Your task to perform on an android device: Open Youtube and go to the subscriptions tab Image 0: 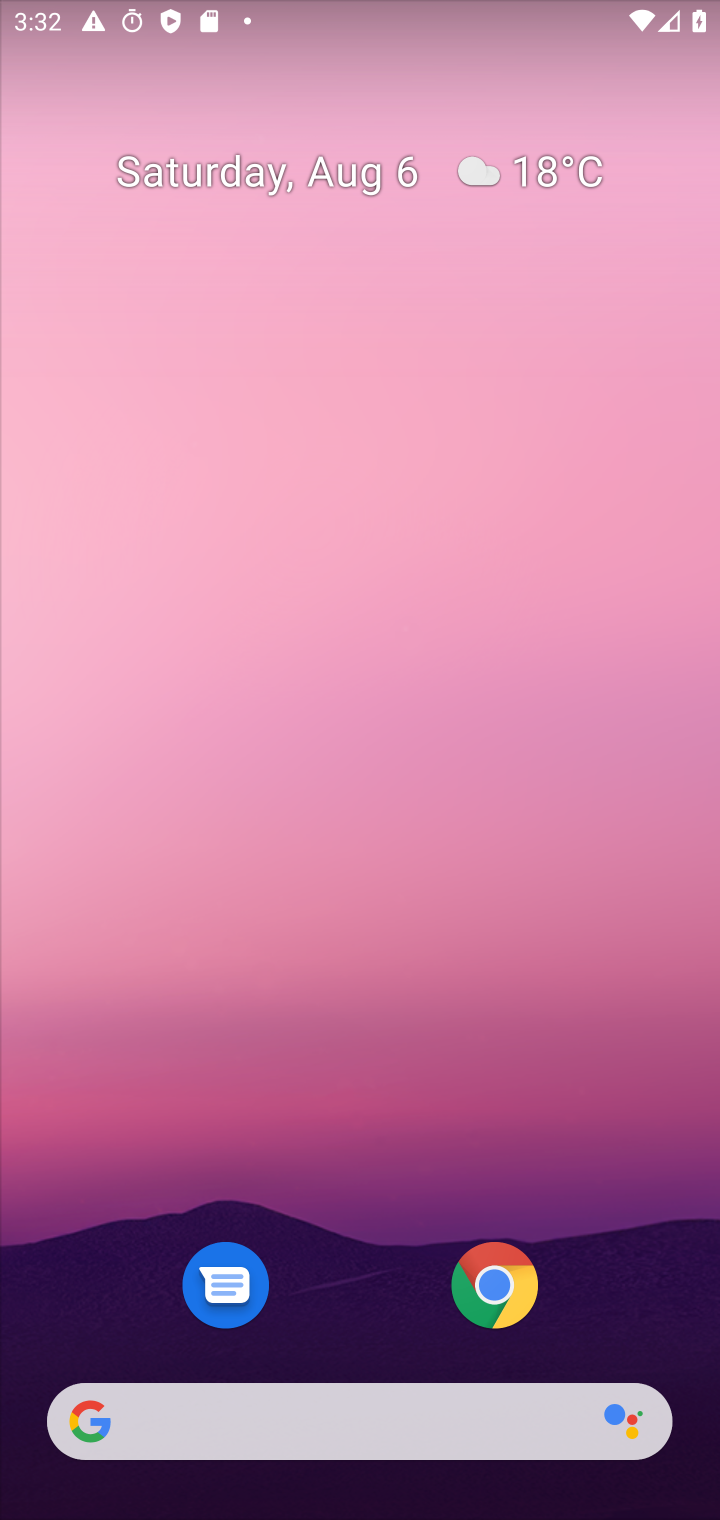
Step 0: press home button
Your task to perform on an android device: Open Youtube and go to the subscriptions tab Image 1: 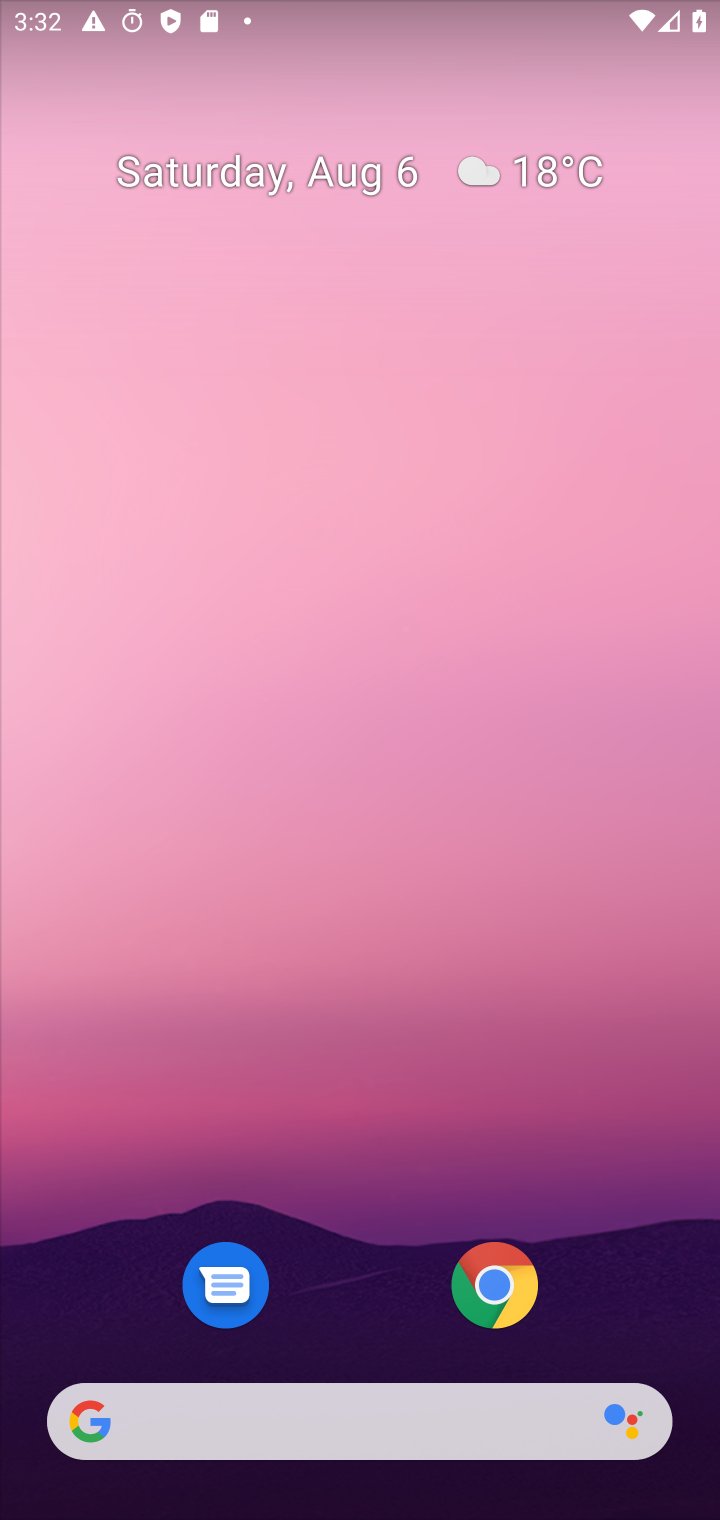
Step 1: drag from (383, 1337) to (408, 166)
Your task to perform on an android device: Open Youtube and go to the subscriptions tab Image 2: 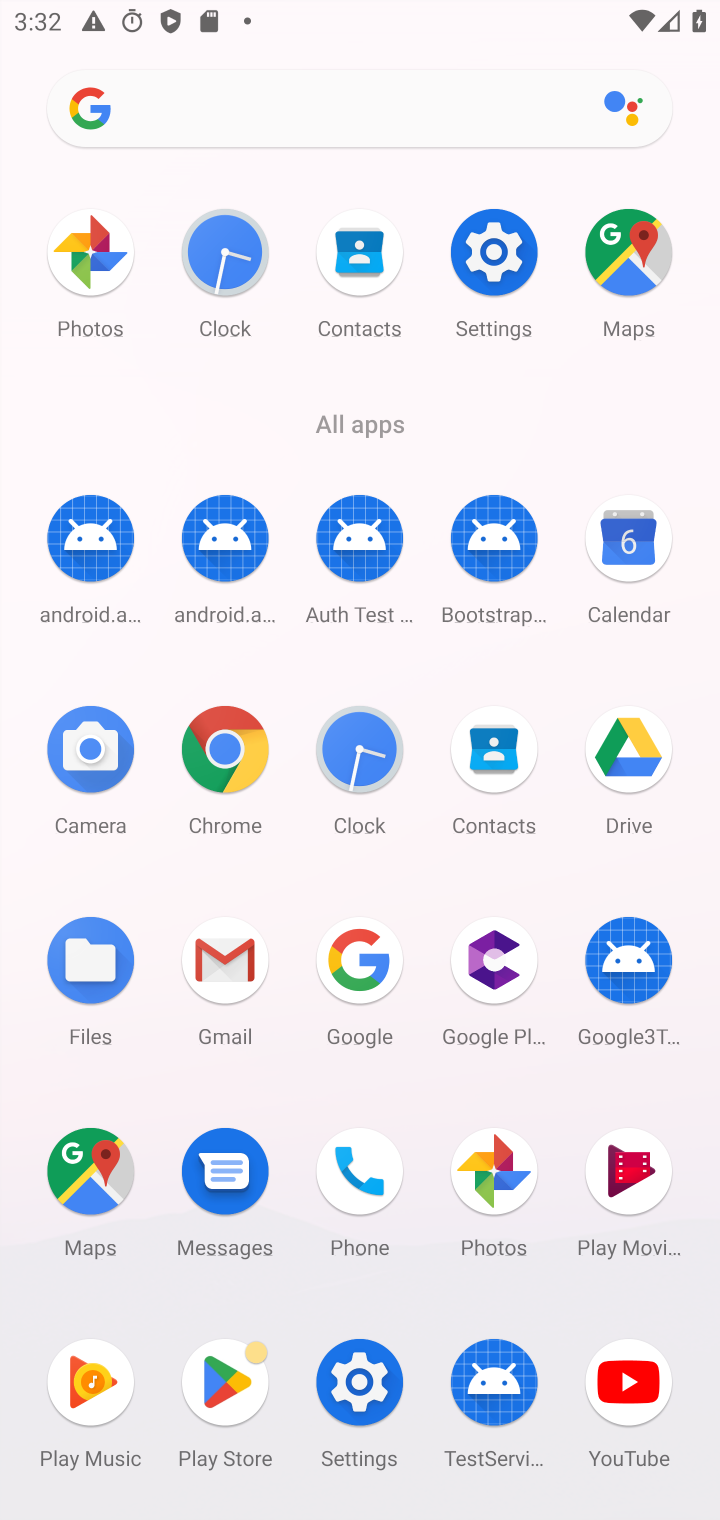
Step 2: click (628, 1366)
Your task to perform on an android device: Open Youtube and go to the subscriptions tab Image 3: 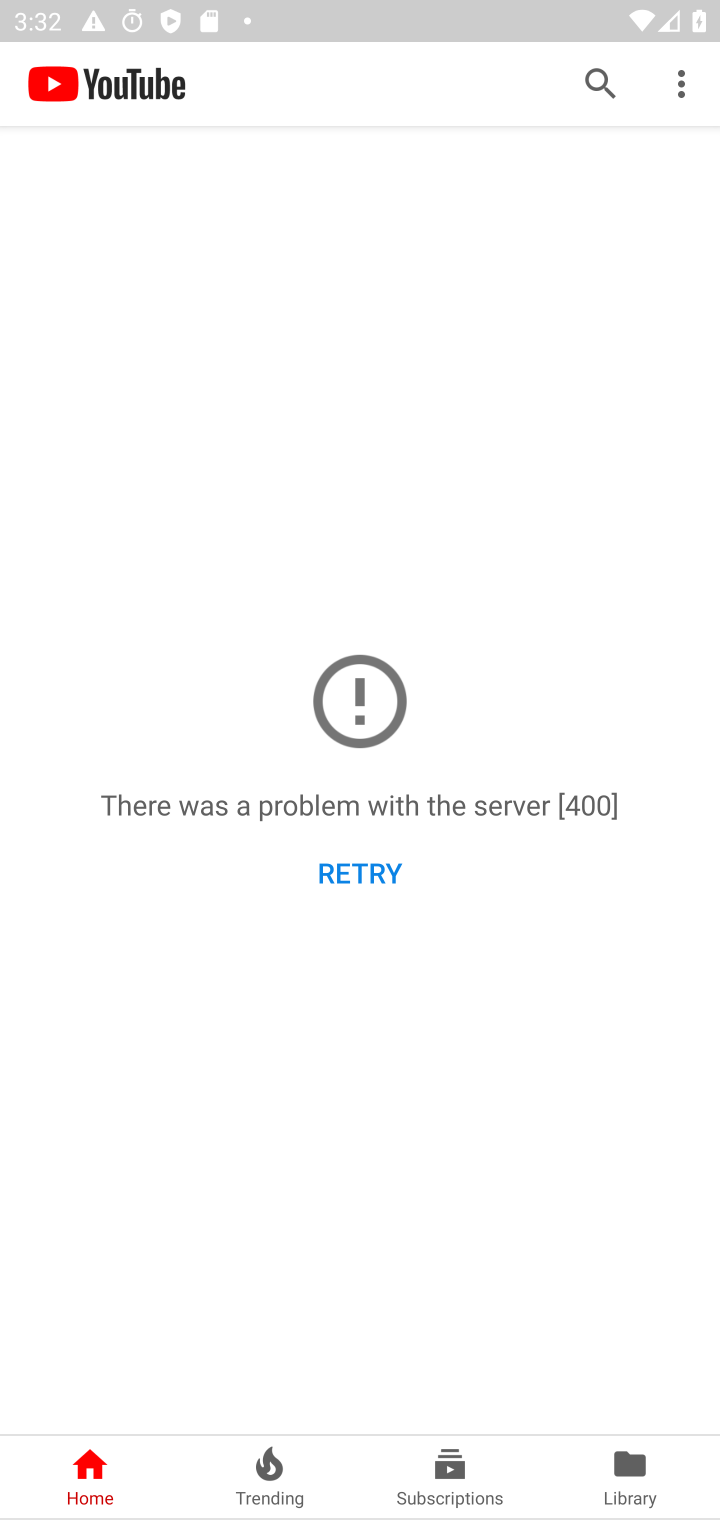
Step 3: click (360, 877)
Your task to perform on an android device: Open Youtube and go to the subscriptions tab Image 4: 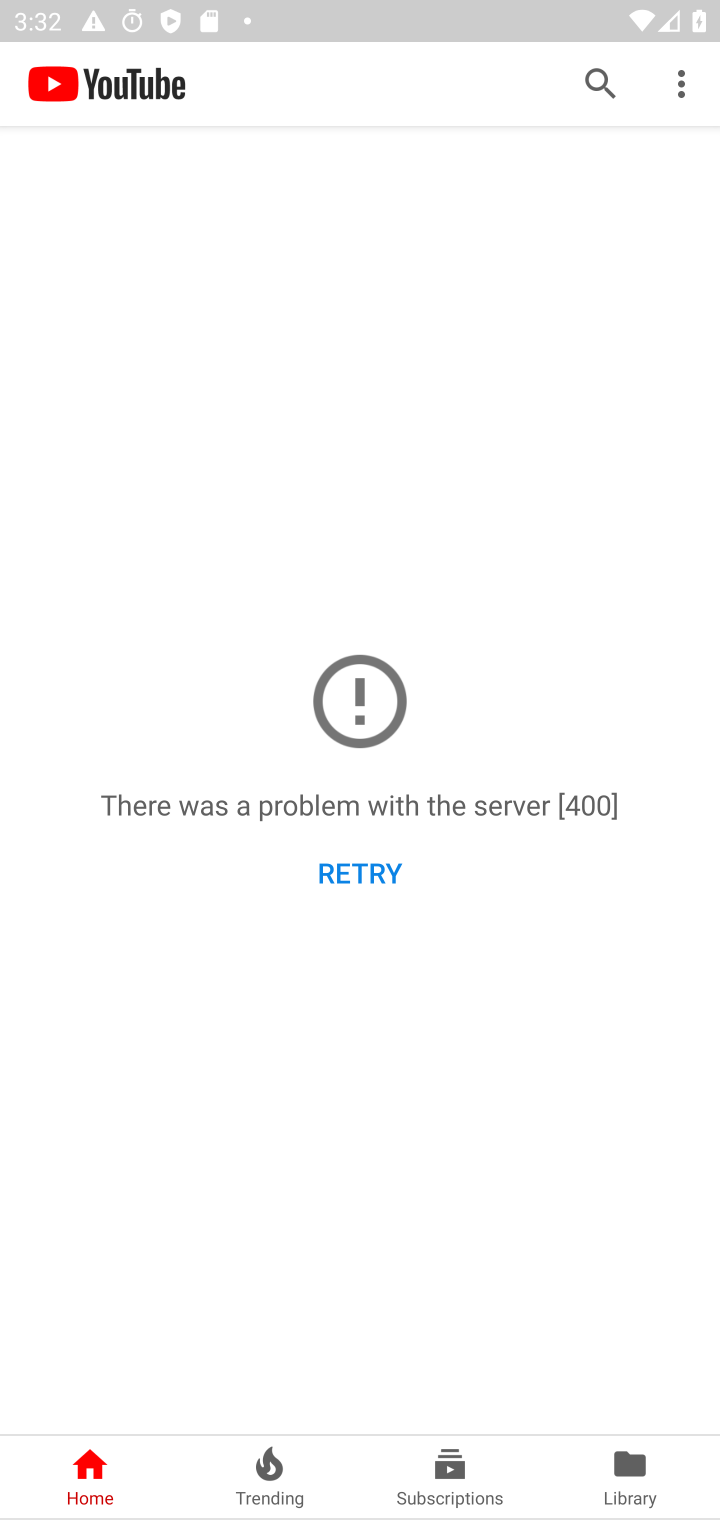
Step 4: click (445, 1459)
Your task to perform on an android device: Open Youtube and go to the subscriptions tab Image 5: 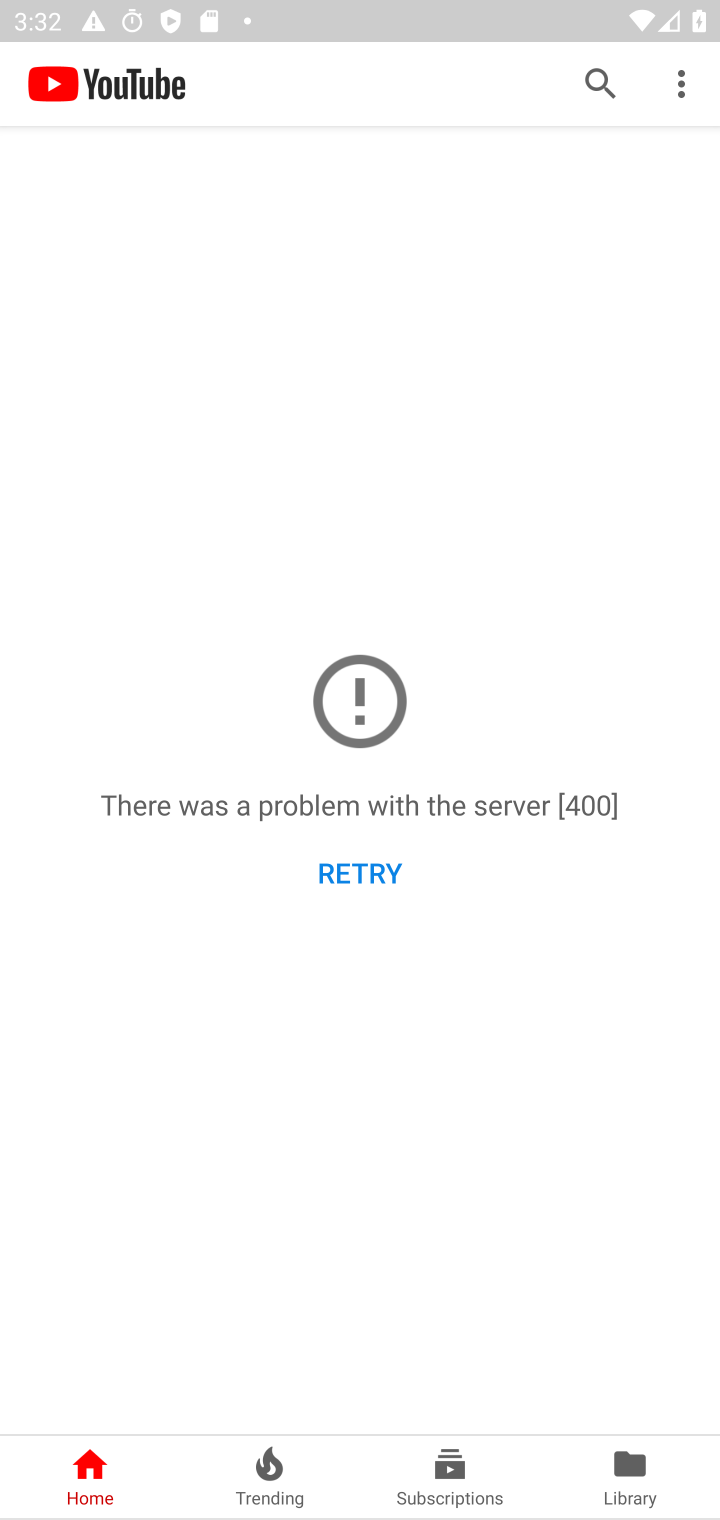
Step 5: click (457, 1469)
Your task to perform on an android device: Open Youtube and go to the subscriptions tab Image 6: 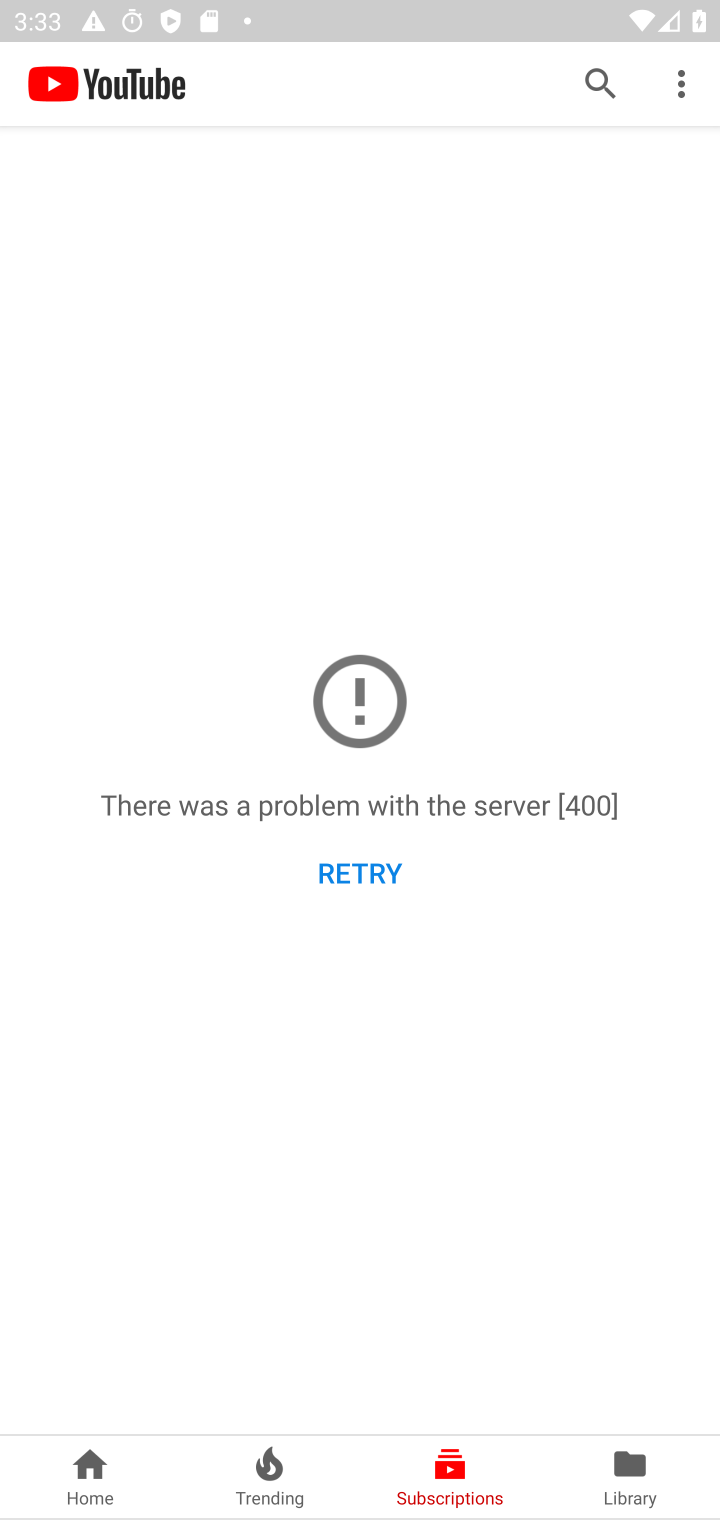
Step 6: task complete